Your task to perform on an android device: Open Chrome and go to settings Image 0: 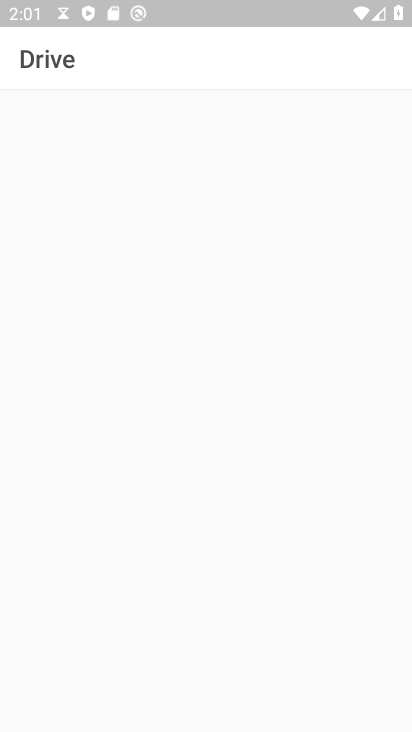
Step 0: press back button
Your task to perform on an android device: Open Chrome and go to settings Image 1: 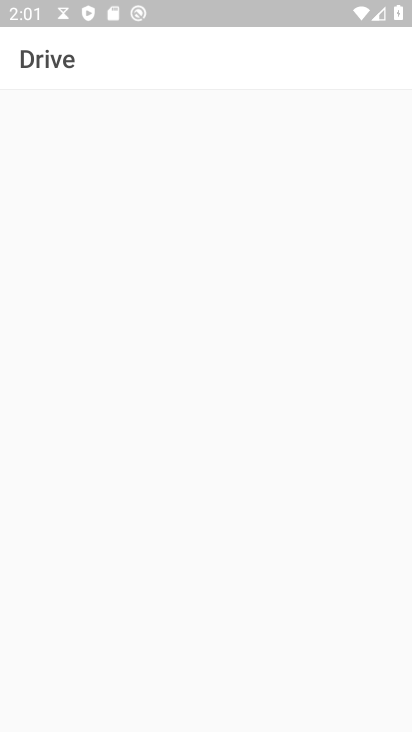
Step 1: press back button
Your task to perform on an android device: Open Chrome and go to settings Image 2: 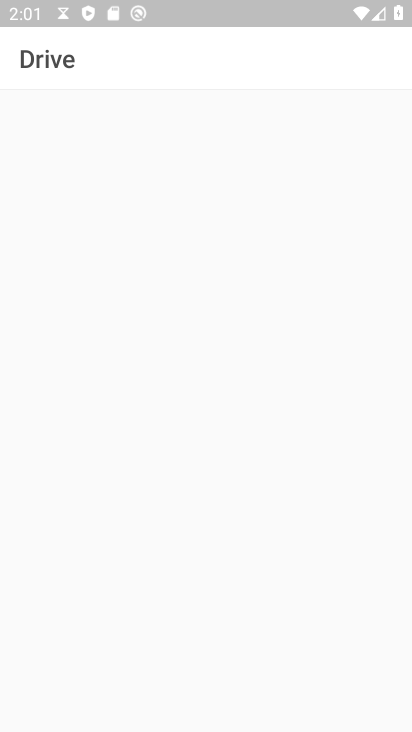
Step 2: press home button
Your task to perform on an android device: Open Chrome and go to settings Image 3: 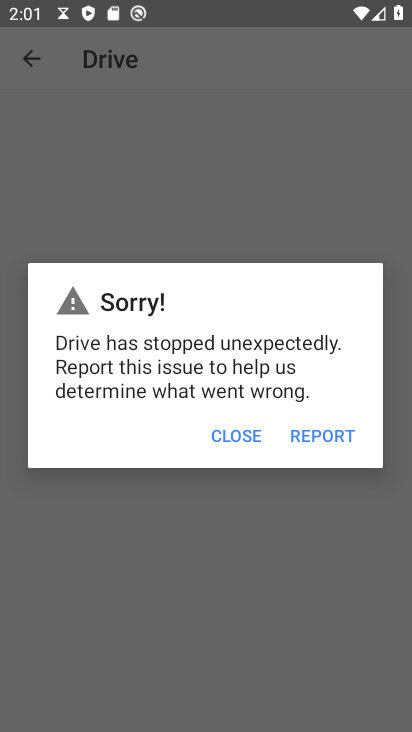
Step 3: press home button
Your task to perform on an android device: Open Chrome and go to settings Image 4: 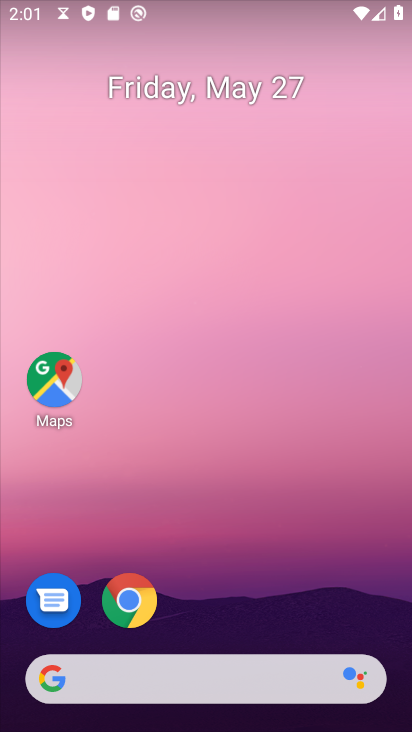
Step 4: drag from (244, 514) to (208, 0)
Your task to perform on an android device: Open Chrome and go to settings Image 5: 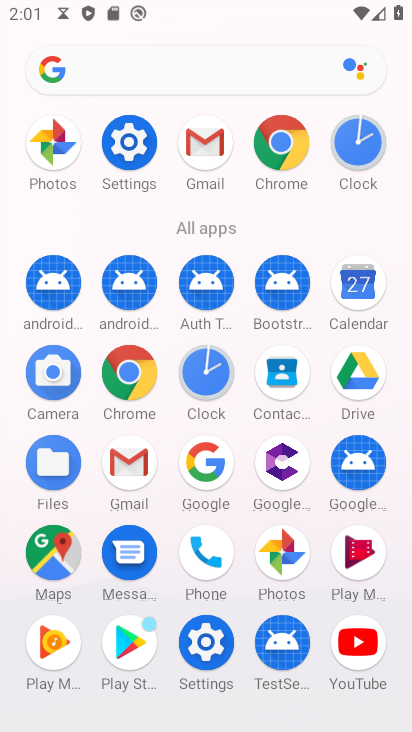
Step 5: click (124, 369)
Your task to perform on an android device: Open Chrome and go to settings Image 6: 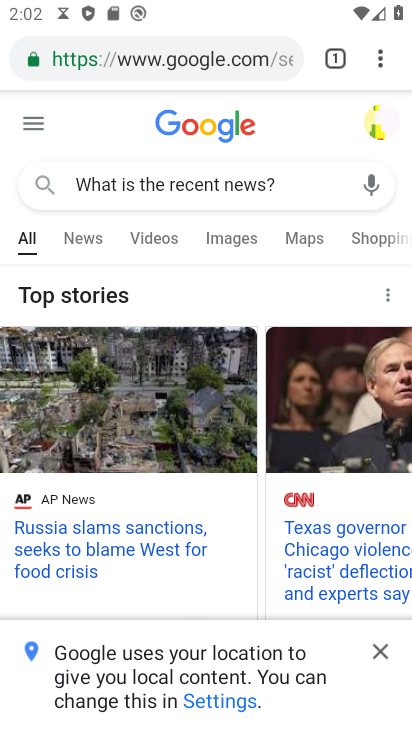
Step 6: task complete